Your task to perform on an android device: Play the latest video from the New York Times Image 0: 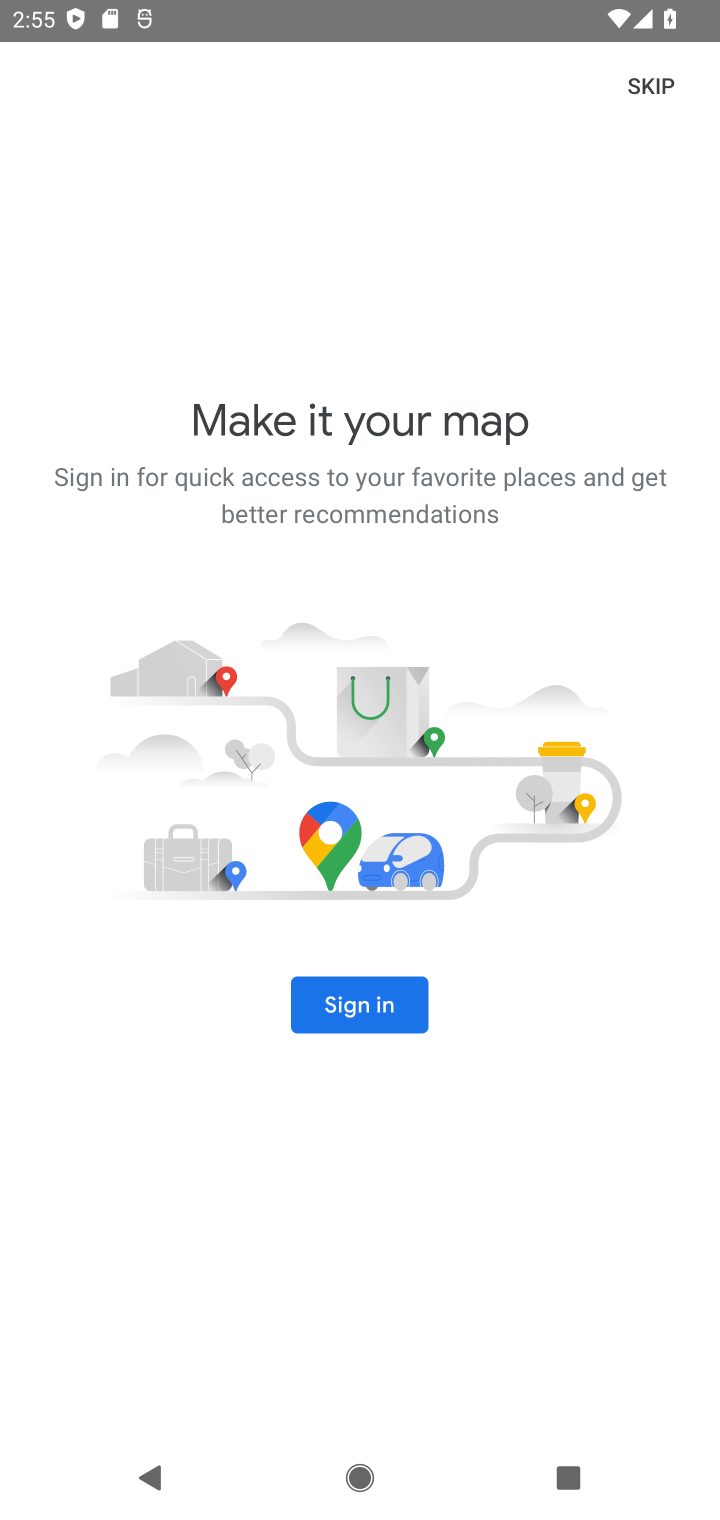
Step 0: press home button
Your task to perform on an android device: Play the latest video from the New York Times Image 1: 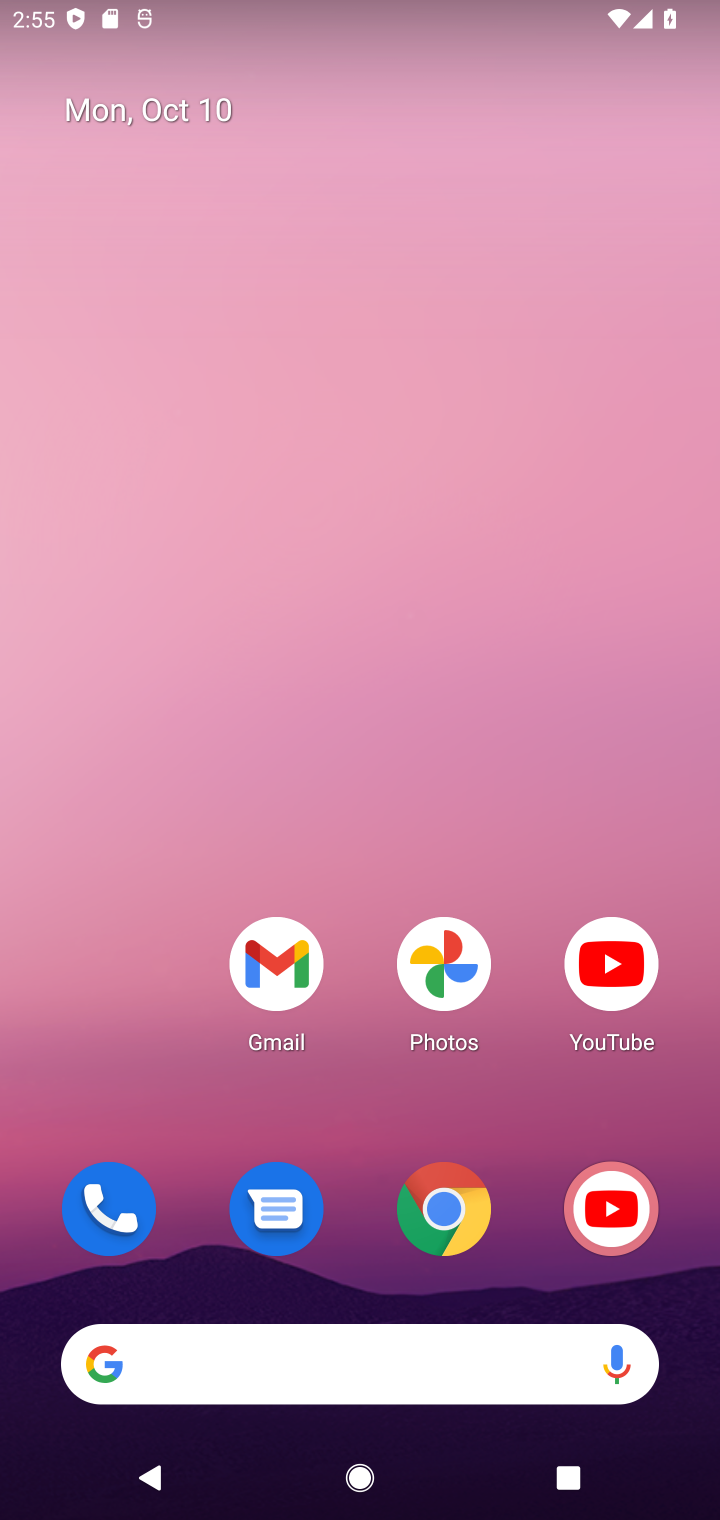
Step 1: click (649, 964)
Your task to perform on an android device: Play the latest video from the New York Times Image 2: 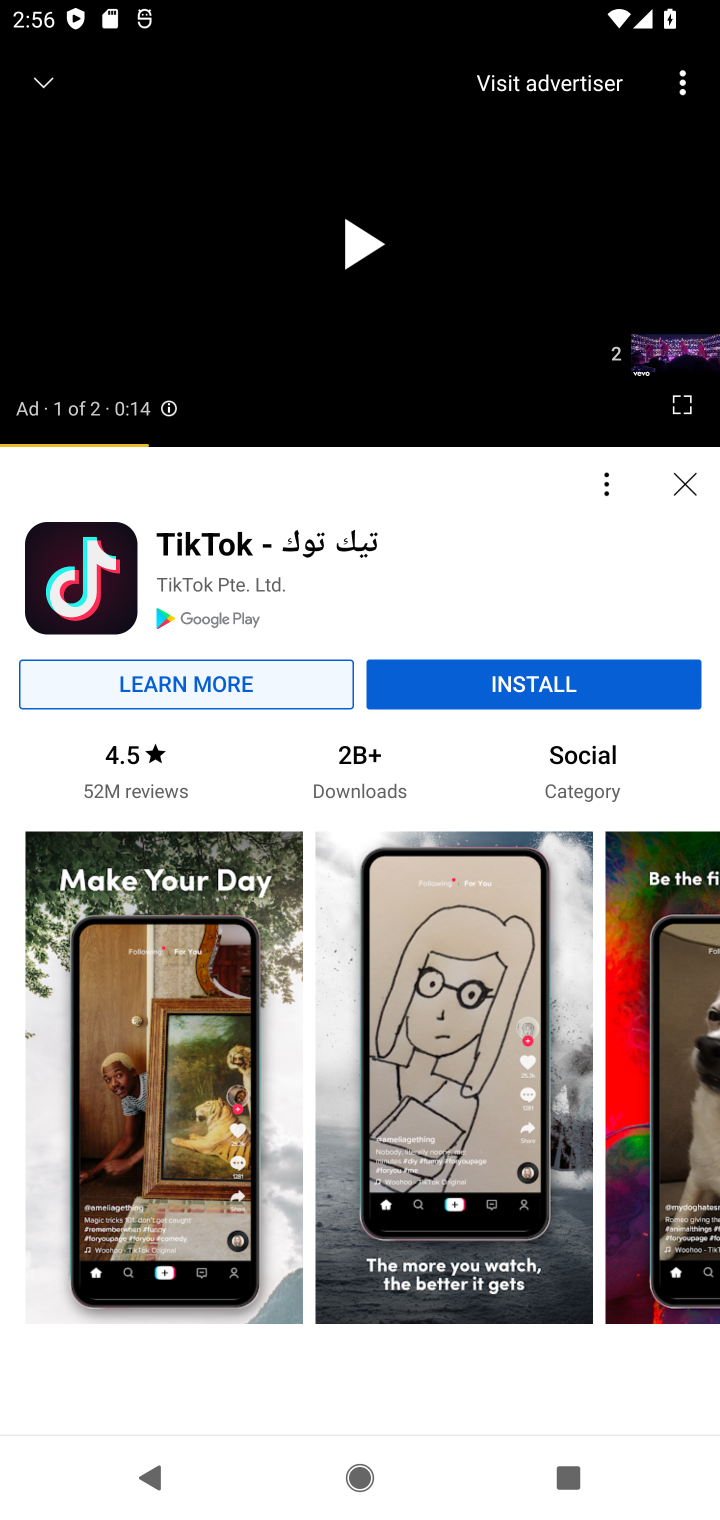
Step 2: click (53, 94)
Your task to perform on an android device: Play the latest video from the New York Times Image 3: 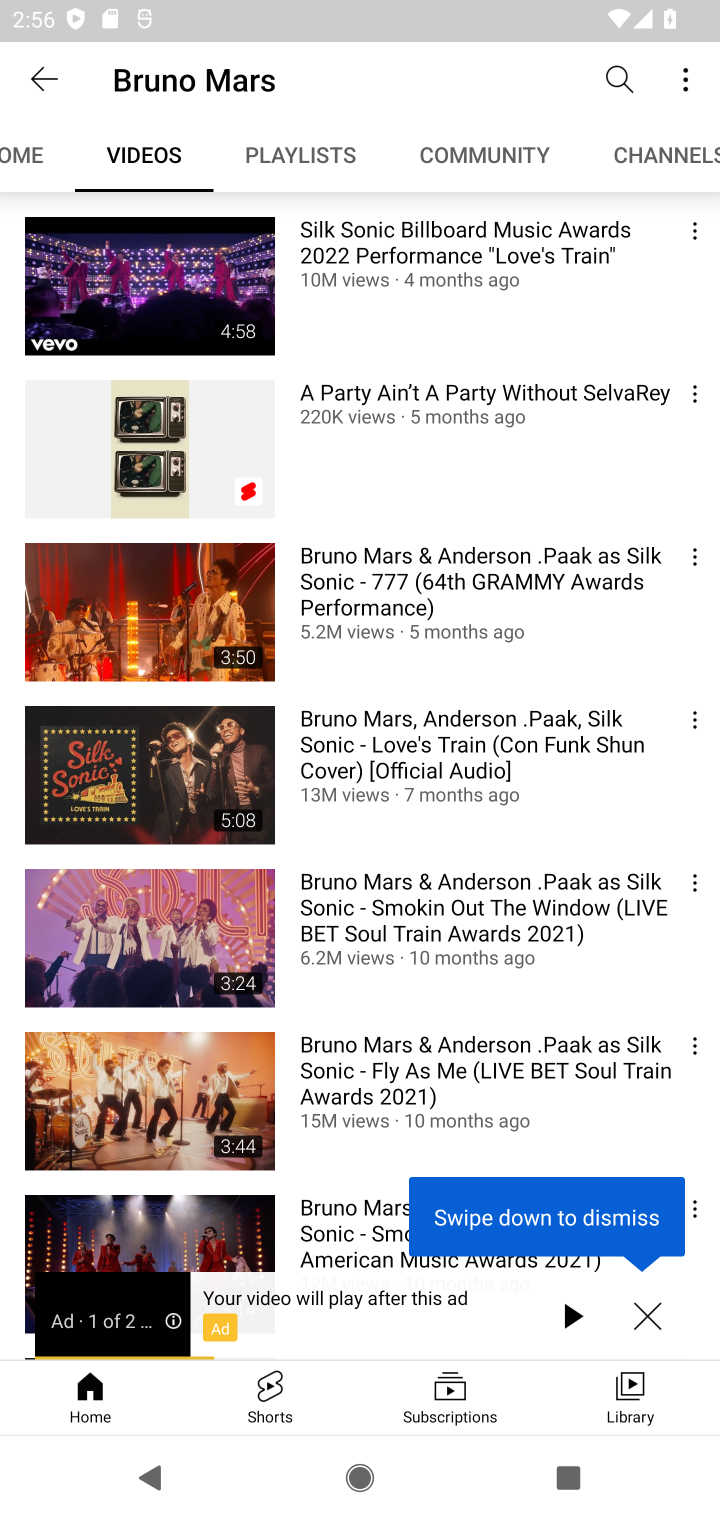
Step 3: click (611, 97)
Your task to perform on an android device: Play the latest video from the New York Times Image 4: 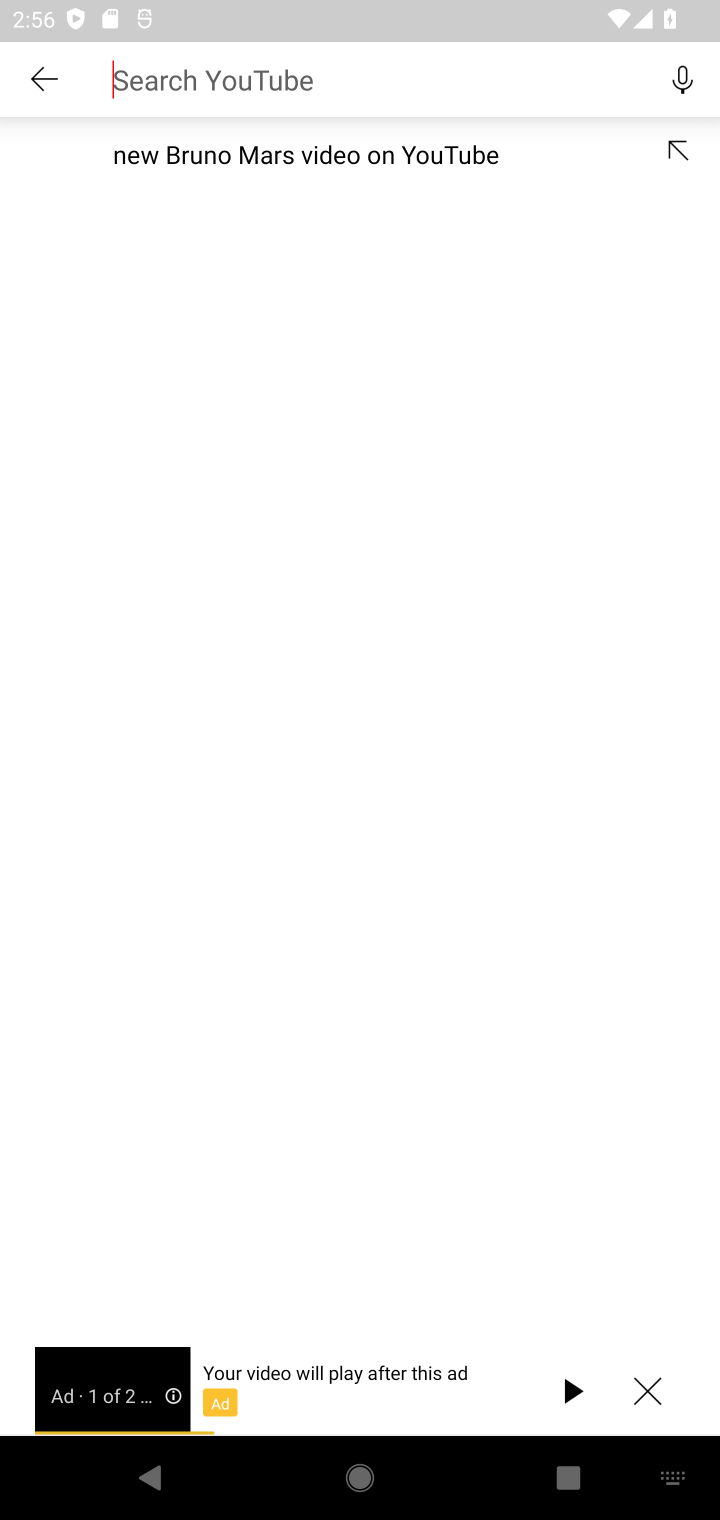
Step 4: type "New York Times"
Your task to perform on an android device: Play the latest video from the New York Times Image 5: 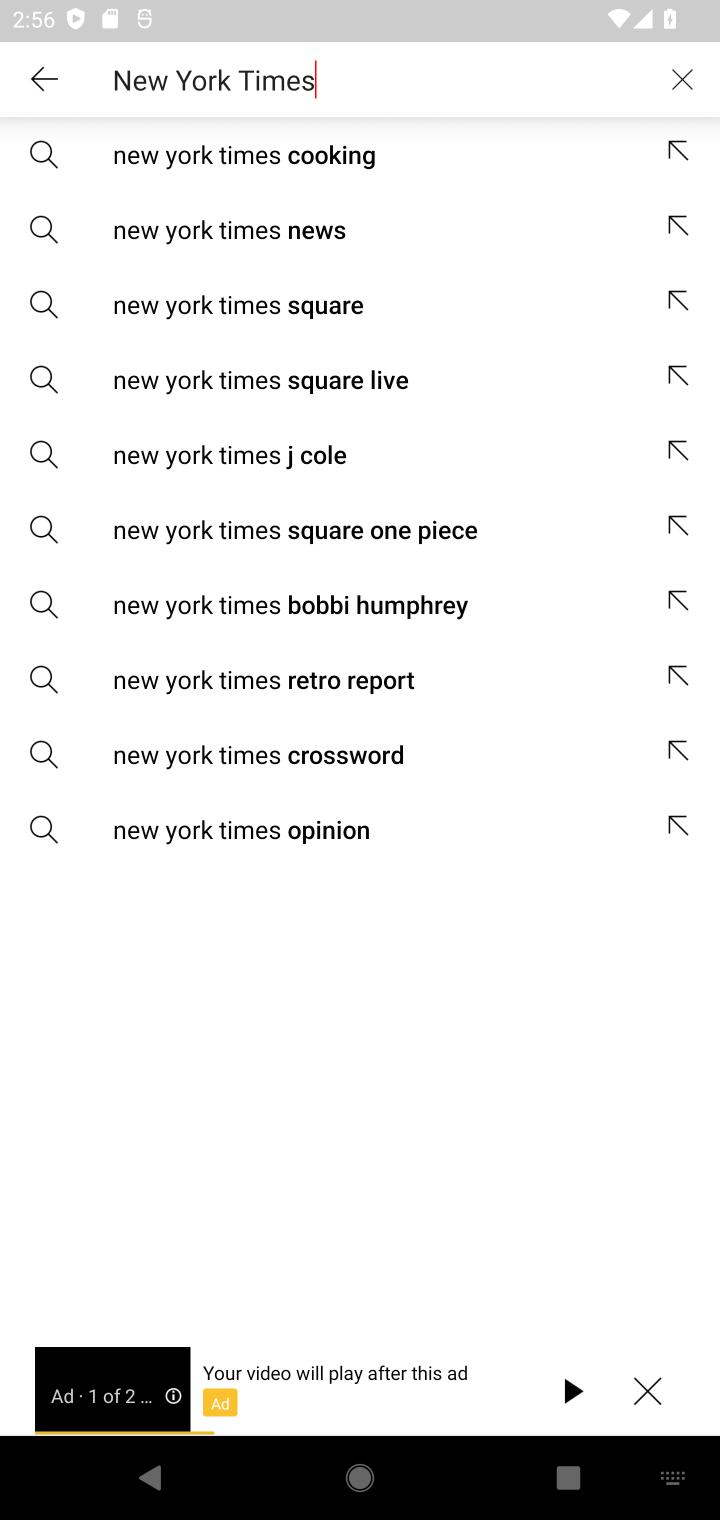
Step 5: press enter
Your task to perform on an android device: Play the latest video from the New York Times Image 6: 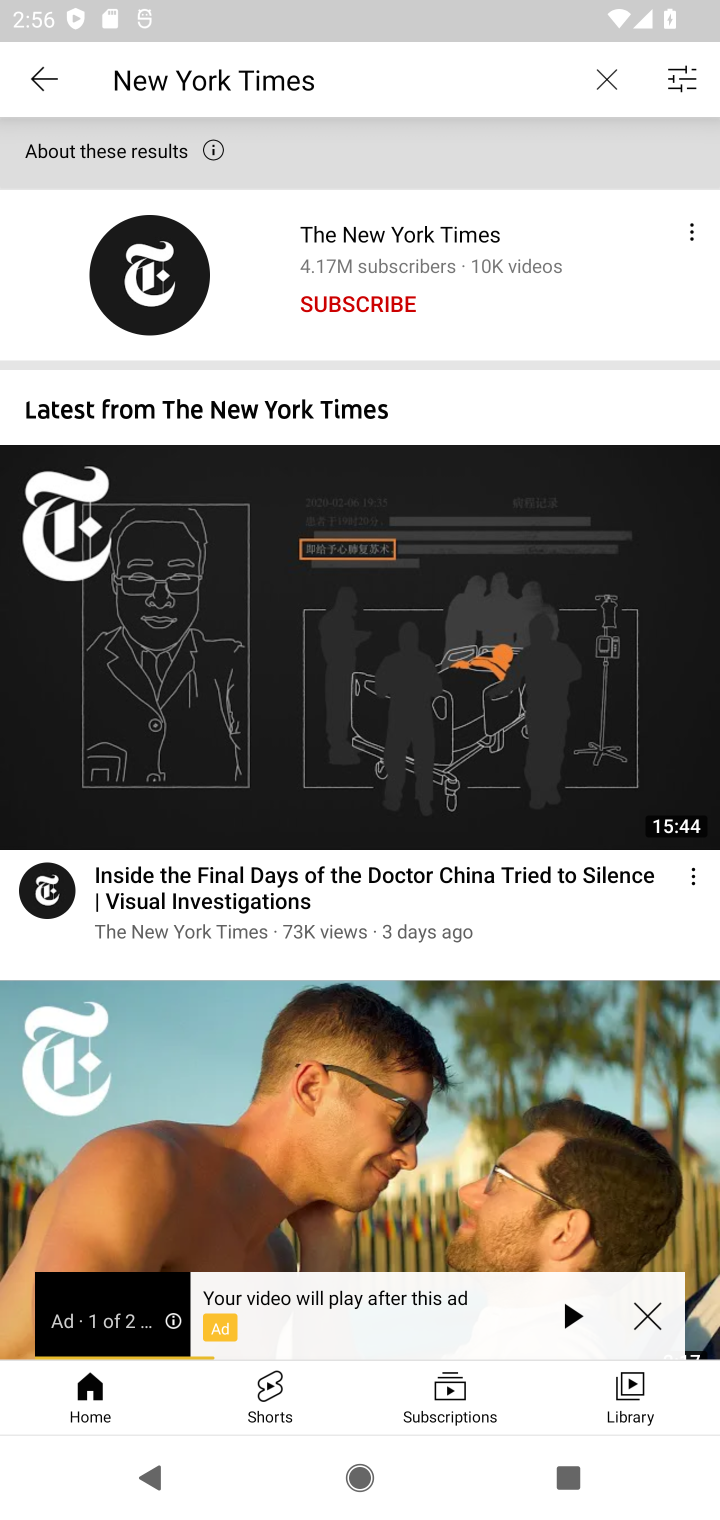
Step 6: click (35, 907)
Your task to perform on an android device: Play the latest video from the New York Times Image 7: 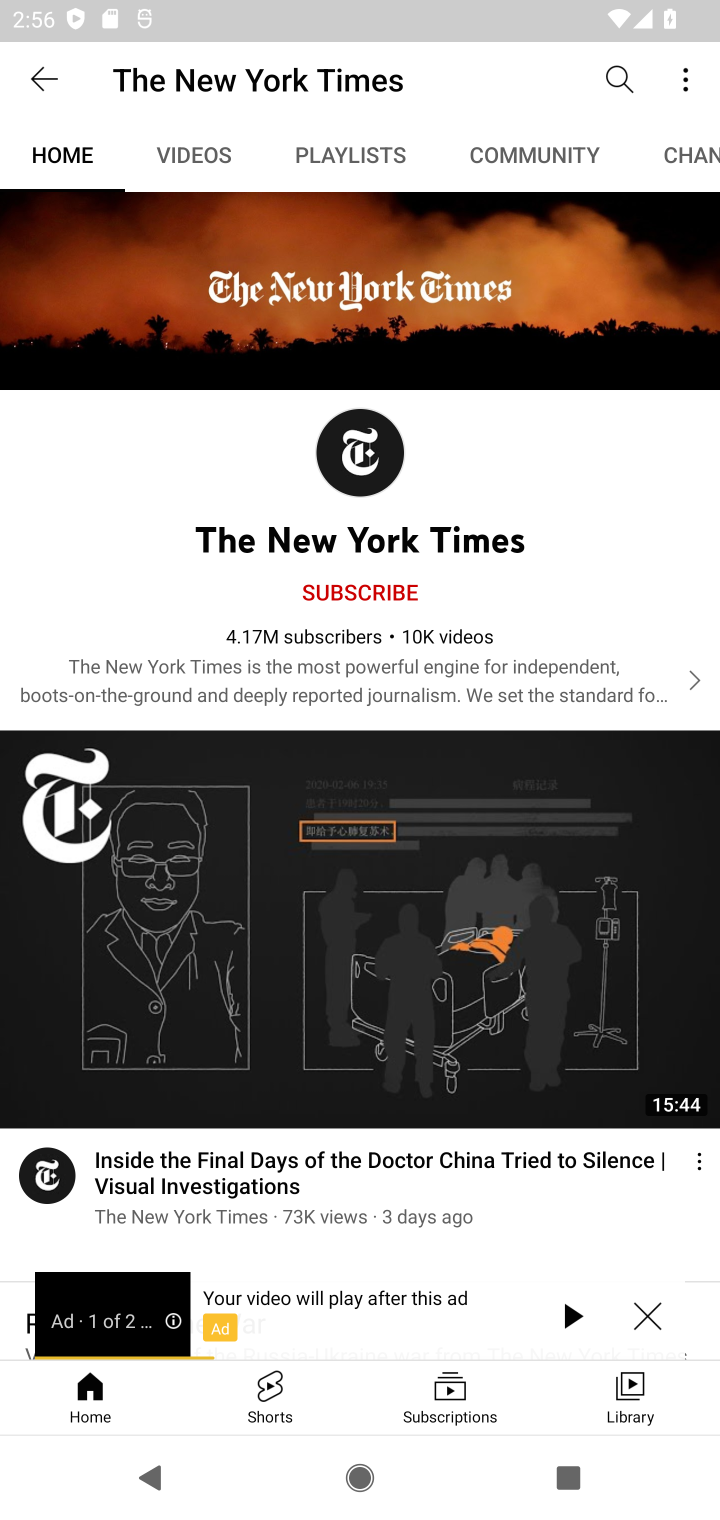
Step 7: click (188, 148)
Your task to perform on an android device: Play the latest video from the New York Times Image 8: 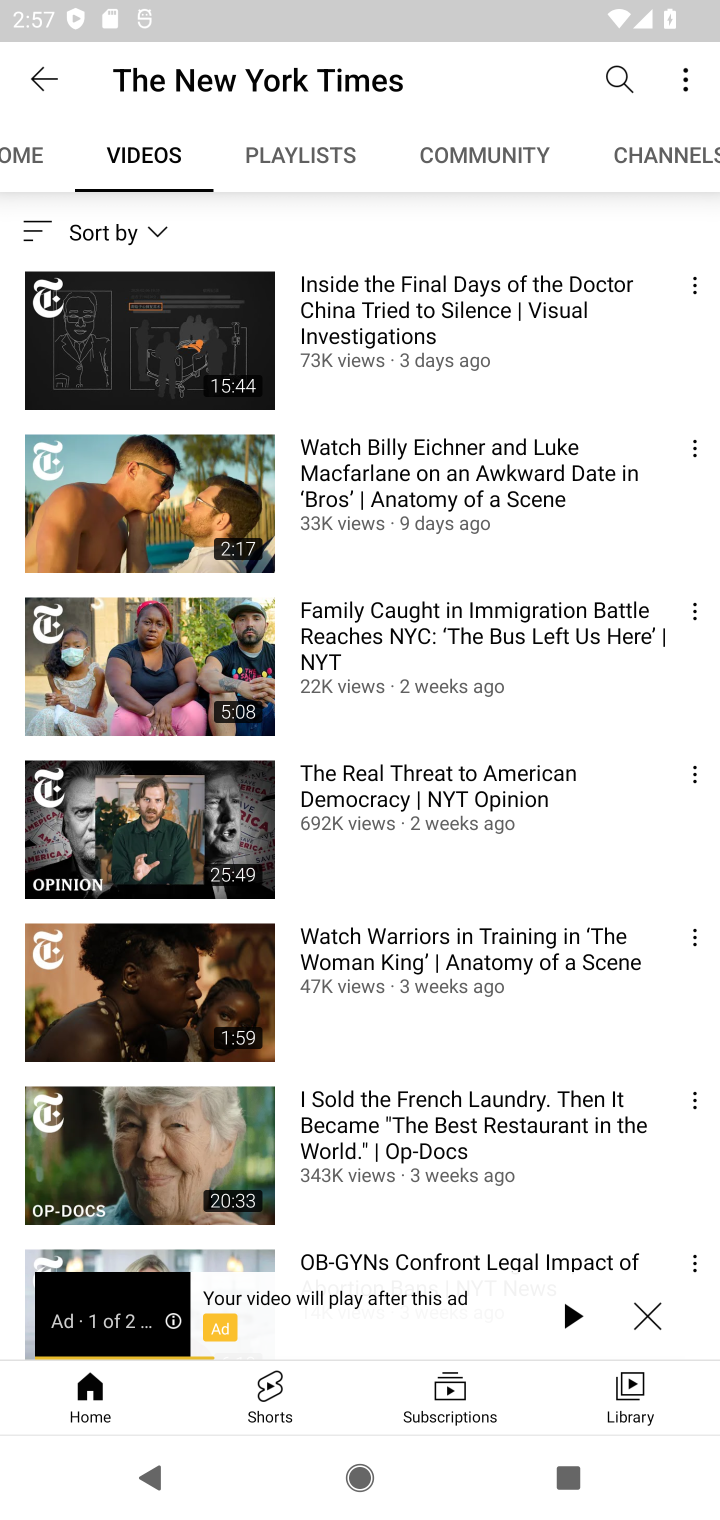
Step 8: click (221, 353)
Your task to perform on an android device: Play the latest video from the New York Times Image 9: 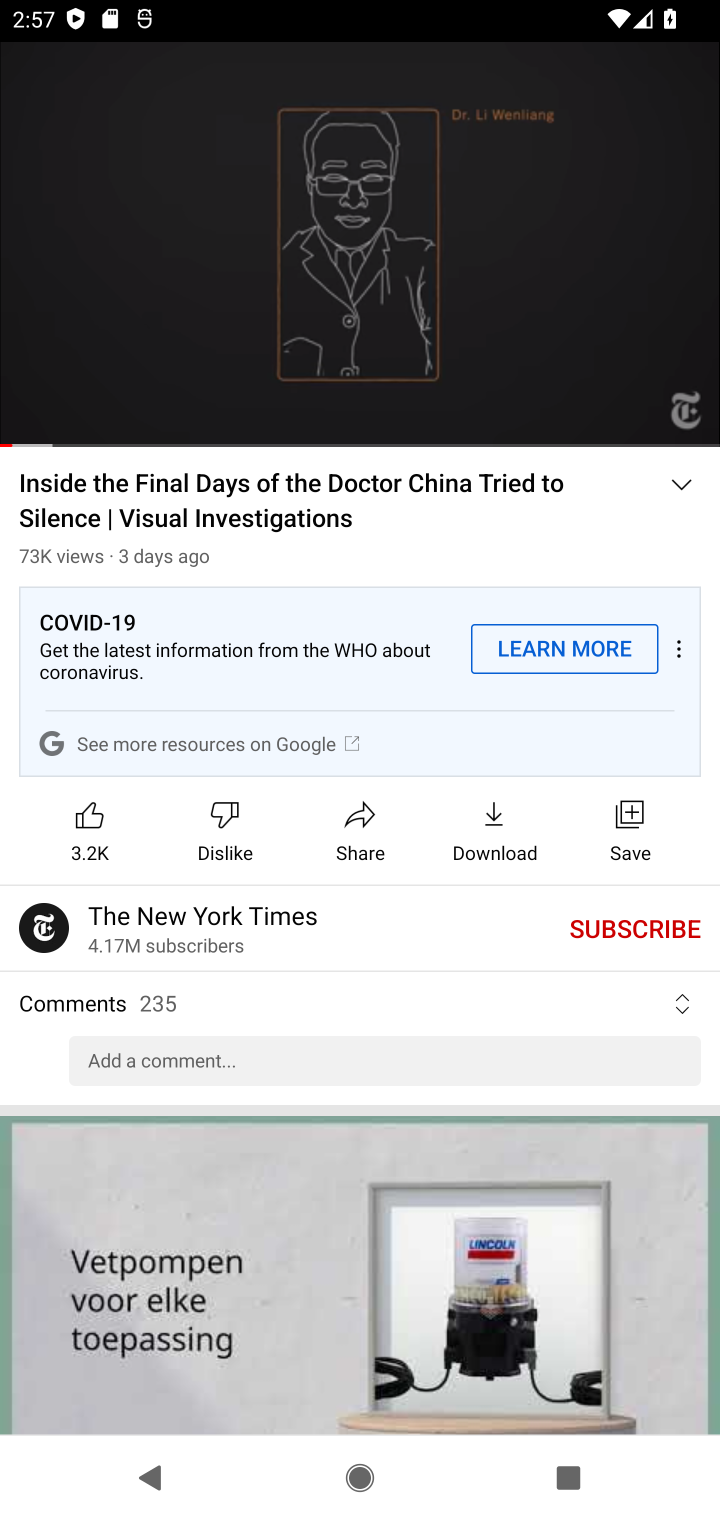
Step 9: task complete